Your task to perform on an android device: What's the weather going to be tomorrow? Image 0: 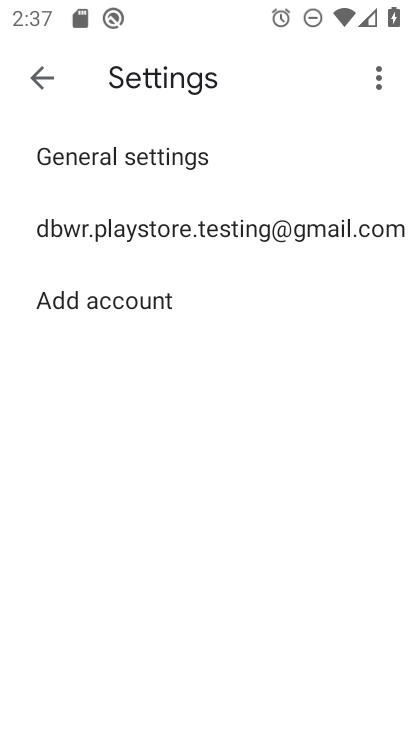
Step 0: press home button
Your task to perform on an android device: What's the weather going to be tomorrow? Image 1: 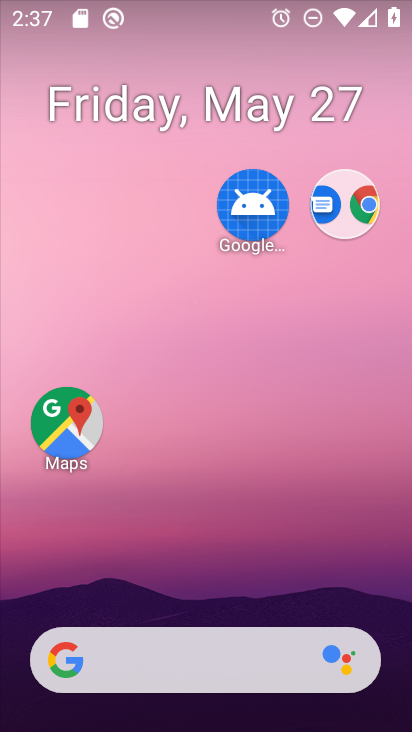
Step 1: drag from (243, 381) to (253, 246)
Your task to perform on an android device: What's the weather going to be tomorrow? Image 2: 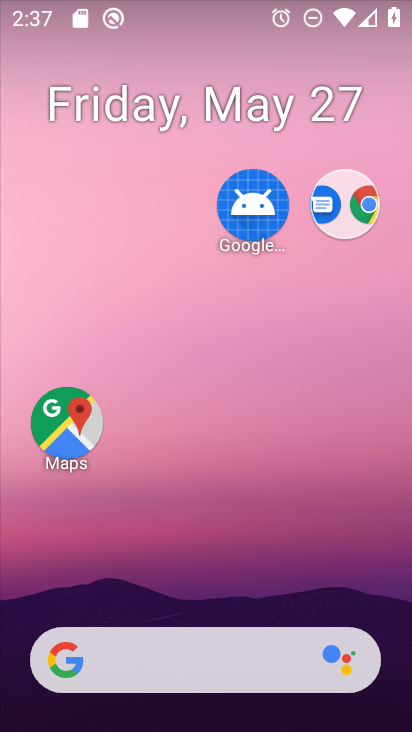
Step 2: drag from (196, 644) to (244, 206)
Your task to perform on an android device: What's the weather going to be tomorrow? Image 3: 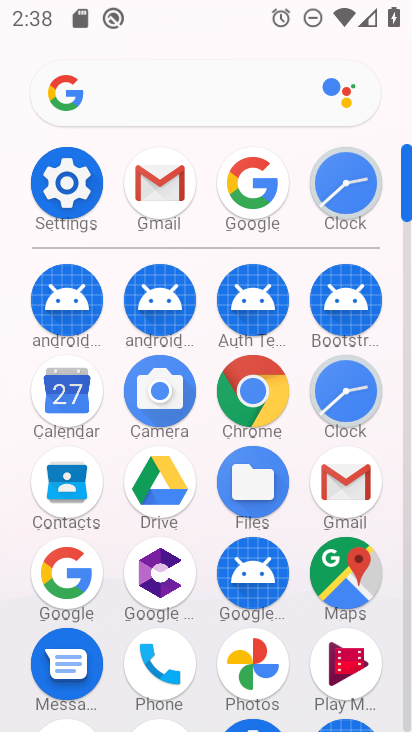
Step 3: click (62, 586)
Your task to perform on an android device: What's the weather going to be tomorrow? Image 4: 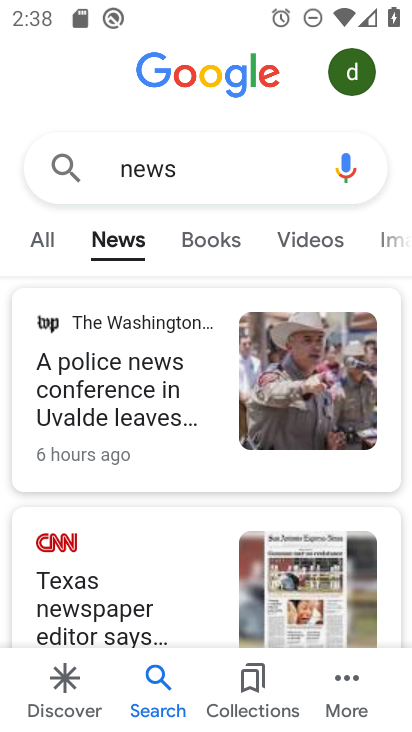
Step 4: click (261, 182)
Your task to perform on an android device: What's the weather going to be tomorrow? Image 5: 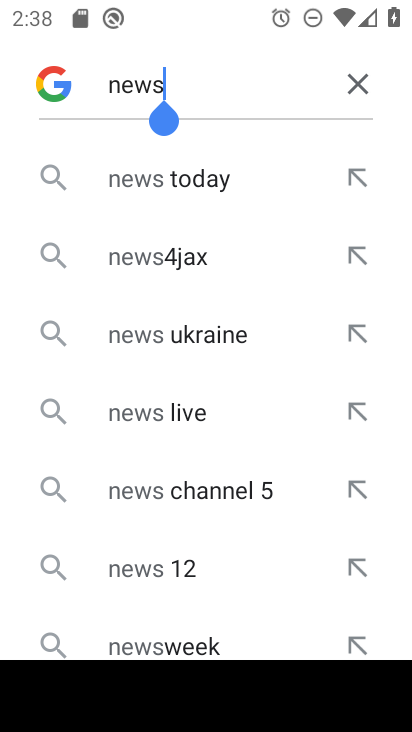
Step 5: click (371, 75)
Your task to perform on an android device: What's the weather going to be tomorrow? Image 6: 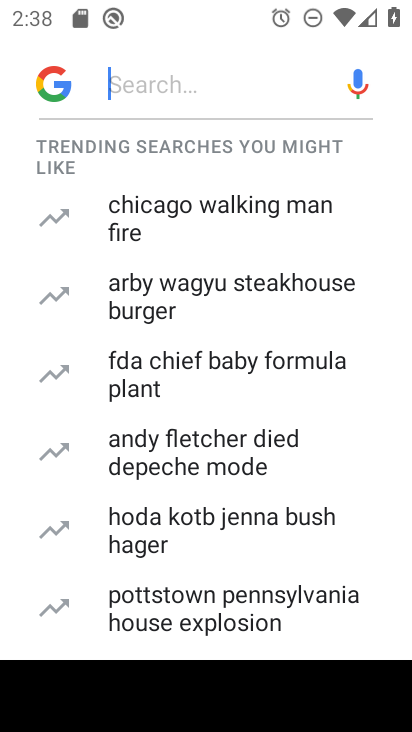
Step 6: type "weather"
Your task to perform on an android device: What's the weather going to be tomorrow? Image 7: 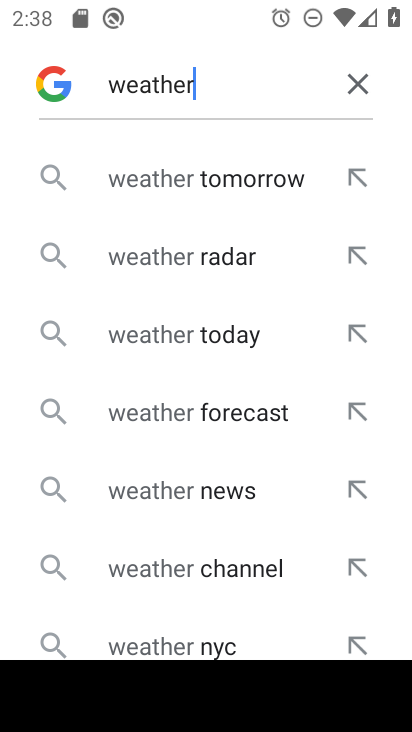
Step 7: click (215, 186)
Your task to perform on an android device: What's the weather going to be tomorrow? Image 8: 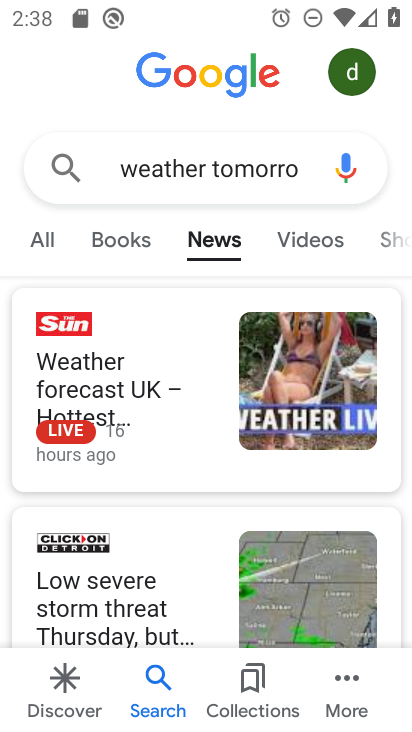
Step 8: click (38, 235)
Your task to perform on an android device: What's the weather going to be tomorrow? Image 9: 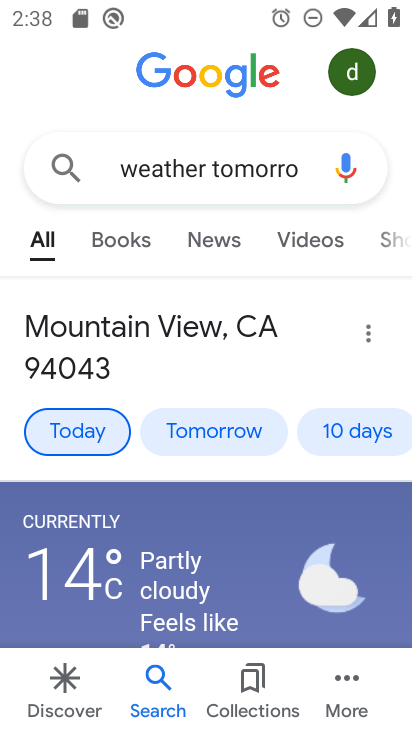
Step 9: click (246, 423)
Your task to perform on an android device: What's the weather going to be tomorrow? Image 10: 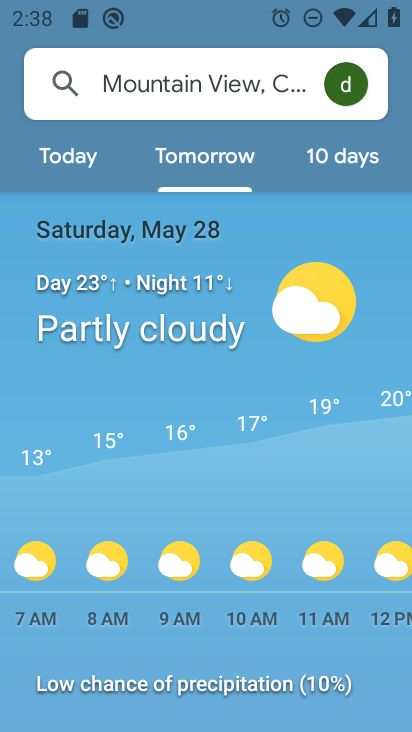
Step 10: task complete